Your task to perform on an android device: toggle airplane mode Image 0: 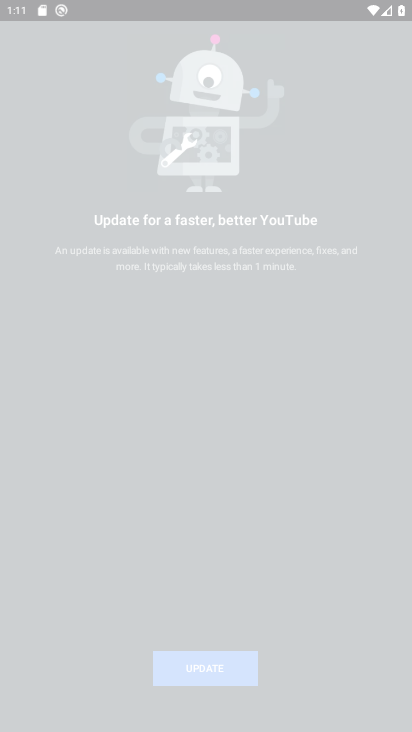
Step 0: press home button
Your task to perform on an android device: toggle airplane mode Image 1: 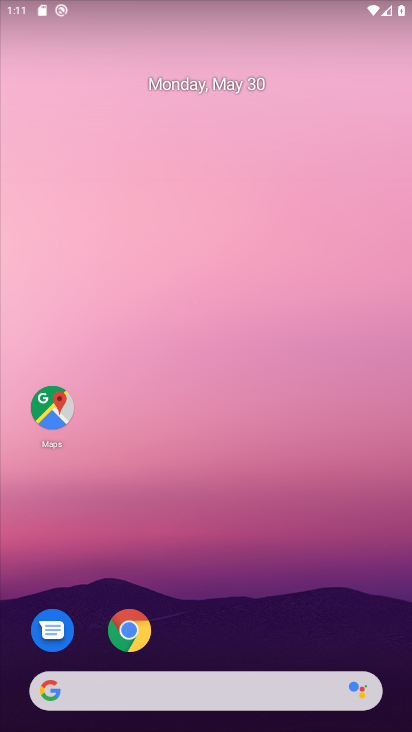
Step 1: drag from (221, 691) to (287, 94)
Your task to perform on an android device: toggle airplane mode Image 2: 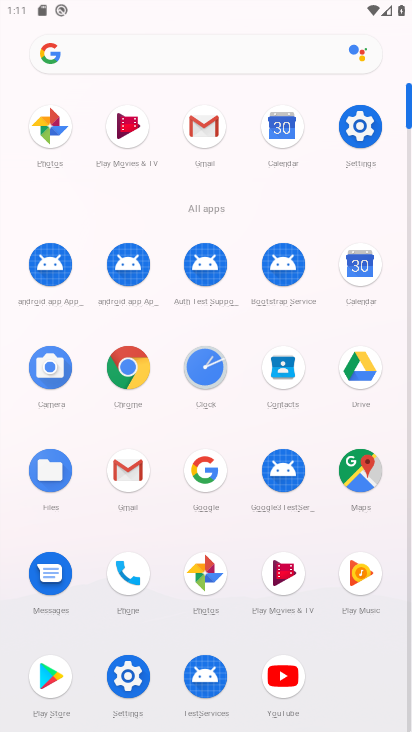
Step 2: click (367, 130)
Your task to perform on an android device: toggle airplane mode Image 3: 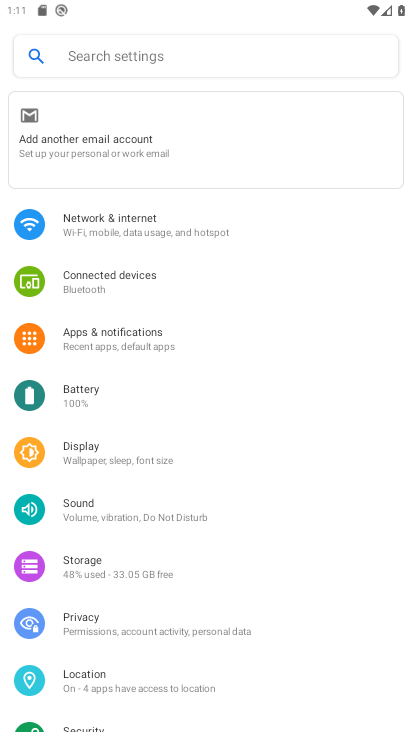
Step 3: click (153, 225)
Your task to perform on an android device: toggle airplane mode Image 4: 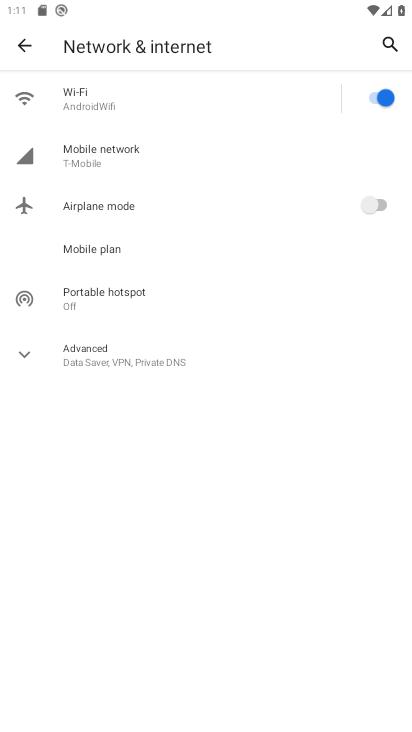
Step 4: click (382, 201)
Your task to perform on an android device: toggle airplane mode Image 5: 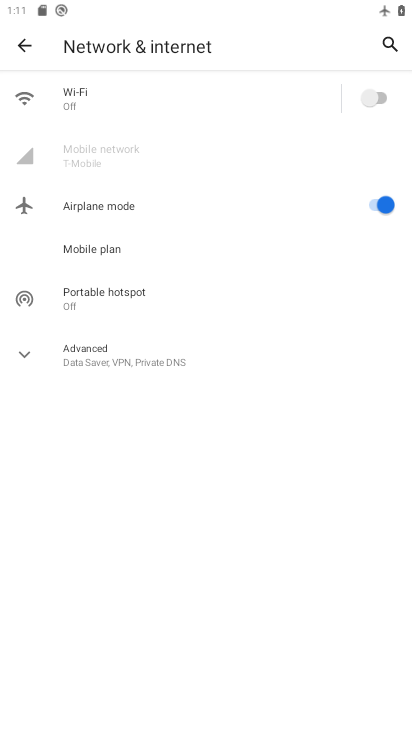
Step 5: task complete